Your task to perform on an android device: Open sound settings Image 0: 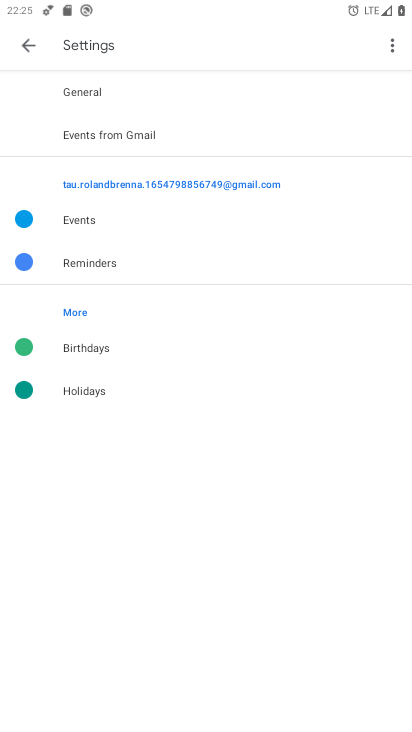
Step 0: press home button
Your task to perform on an android device: Open sound settings Image 1: 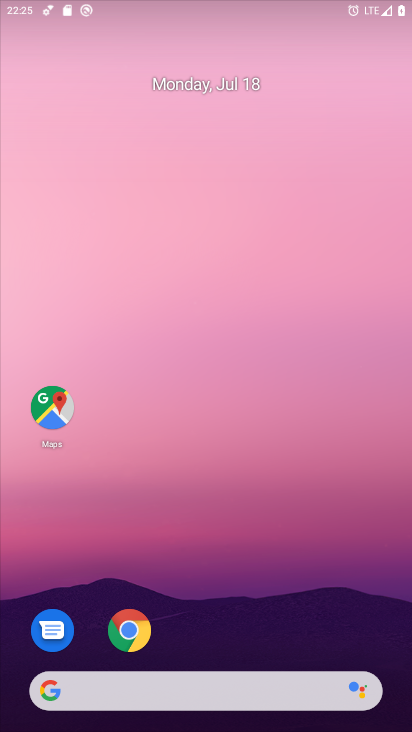
Step 1: drag from (195, 679) to (234, 199)
Your task to perform on an android device: Open sound settings Image 2: 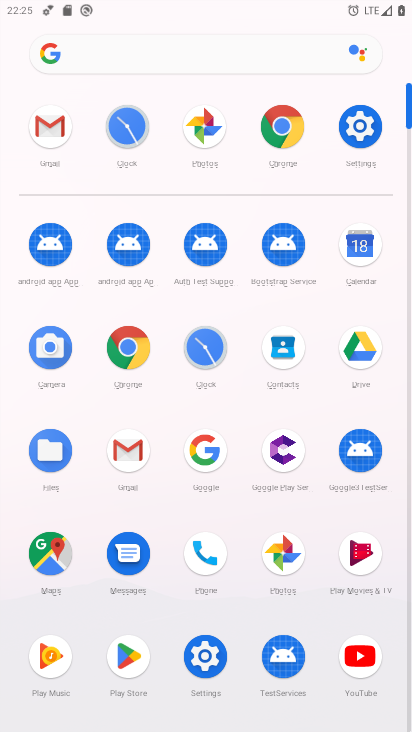
Step 2: click (365, 115)
Your task to perform on an android device: Open sound settings Image 3: 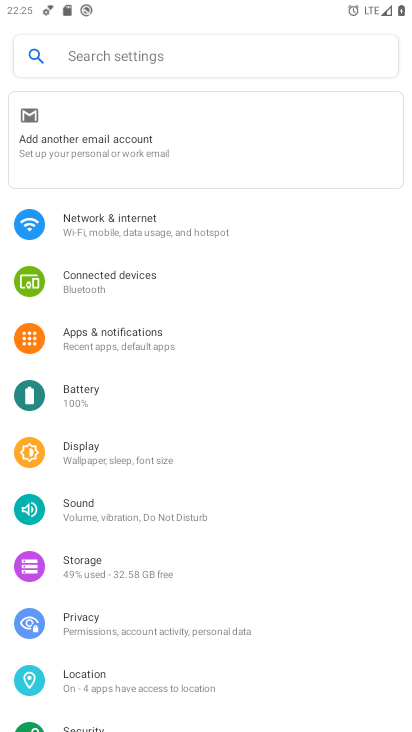
Step 3: click (114, 507)
Your task to perform on an android device: Open sound settings Image 4: 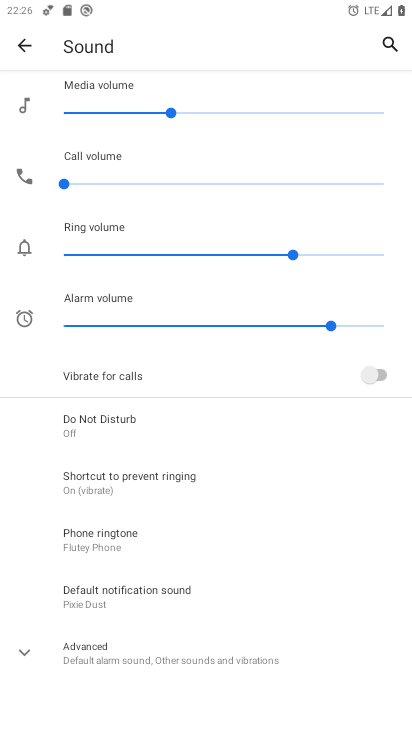
Step 4: task complete